Your task to perform on an android device: Open Wikipedia Image 0: 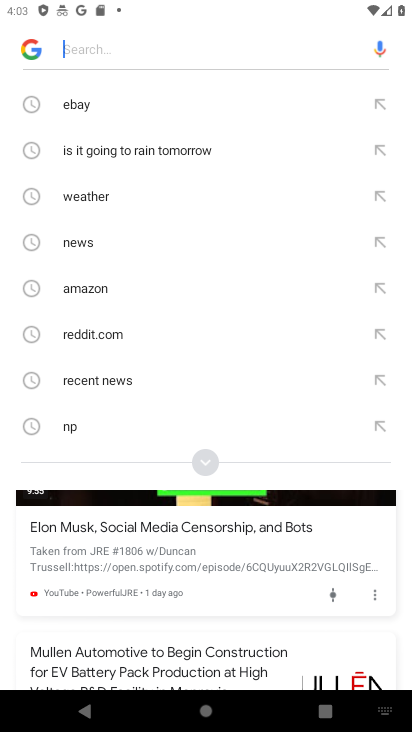
Step 0: press home button
Your task to perform on an android device: Open Wikipedia Image 1: 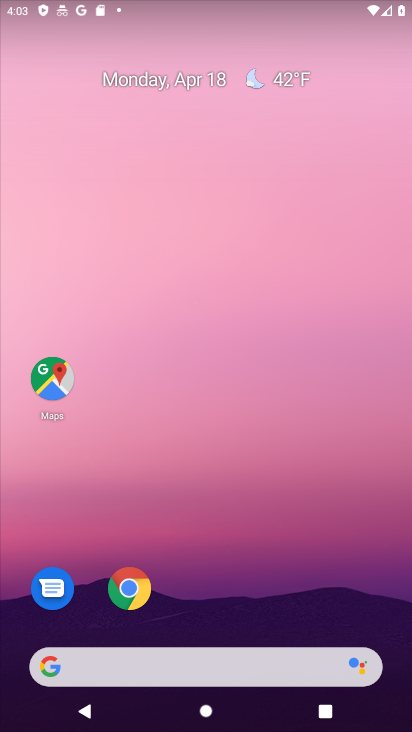
Step 1: click (158, 662)
Your task to perform on an android device: Open Wikipedia Image 2: 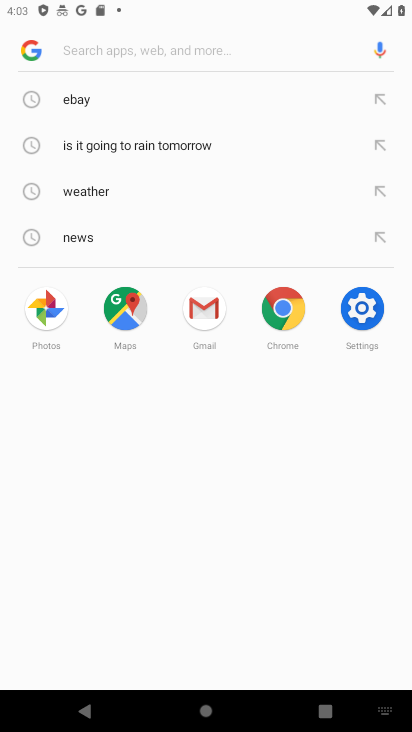
Step 2: click (121, 49)
Your task to perform on an android device: Open Wikipedia Image 3: 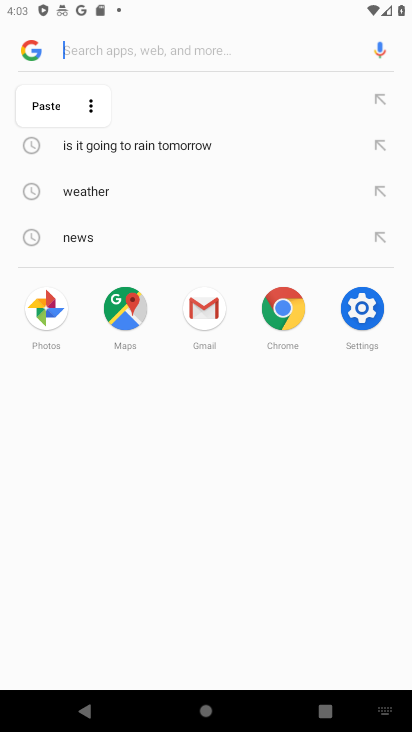
Step 3: type "wikipedia"
Your task to perform on an android device: Open Wikipedia Image 4: 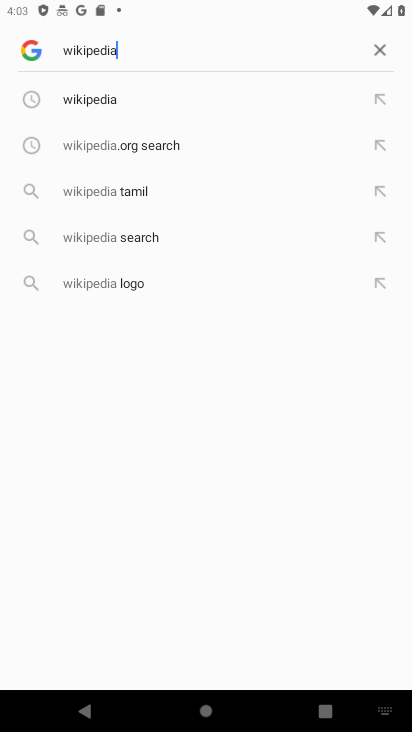
Step 4: click (116, 92)
Your task to perform on an android device: Open Wikipedia Image 5: 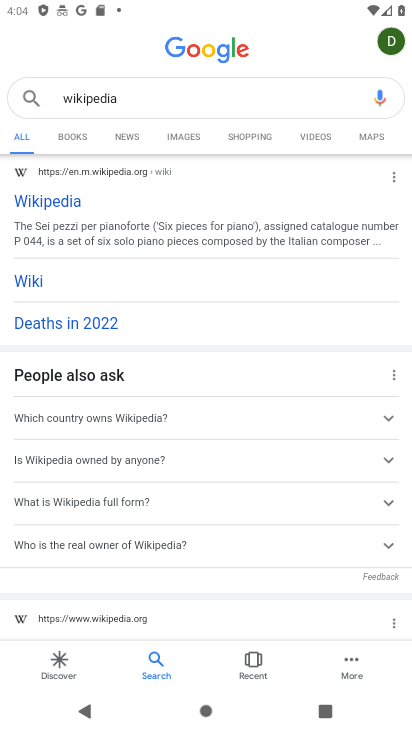
Step 5: task complete